Your task to perform on an android device: Go to accessibility settings Image 0: 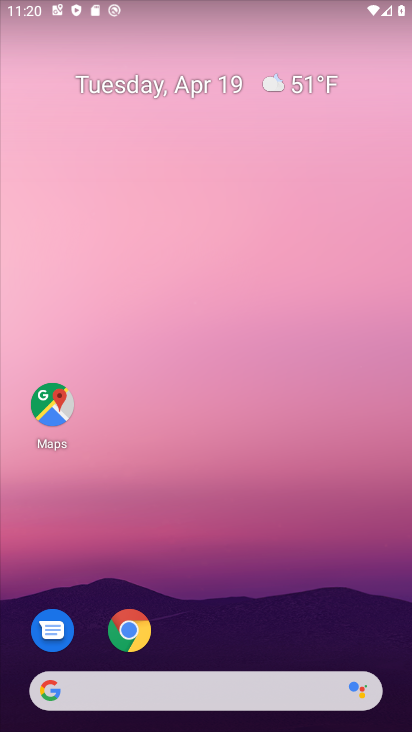
Step 0: click (145, 623)
Your task to perform on an android device: Go to accessibility settings Image 1: 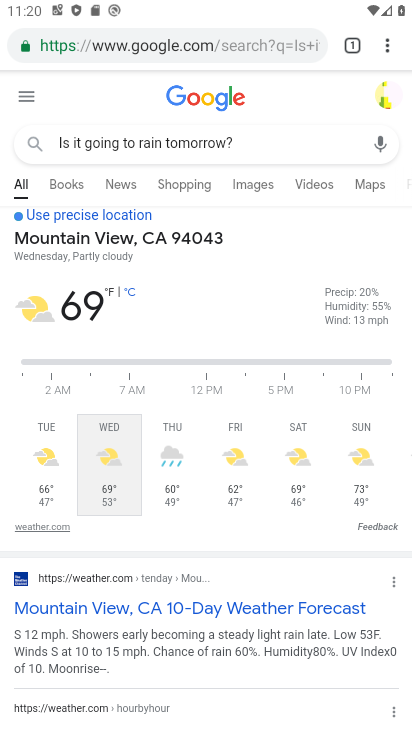
Step 1: click (386, 51)
Your task to perform on an android device: Go to accessibility settings Image 2: 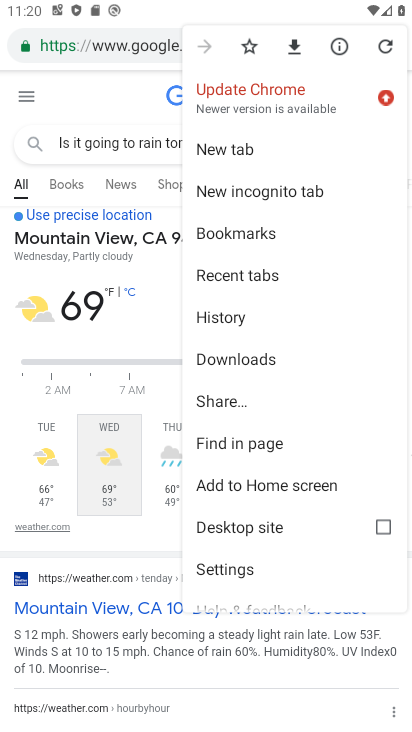
Step 2: click (277, 564)
Your task to perform on an android device: Go to accessibility settings Image 3: 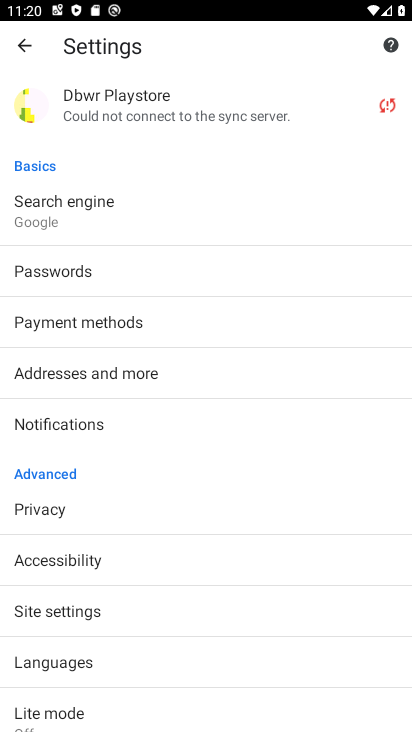
Step 3: drag from (253, 629) to (247, 408)
Your task to perform on an android device: Go to accessibility settings Image 4: 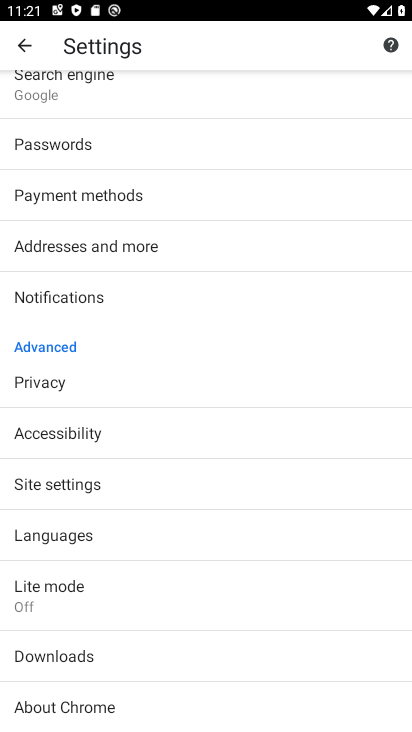
Step 4: click (242, 445)
Your task to perform on an android device: Go to accessibility settings Image 5: 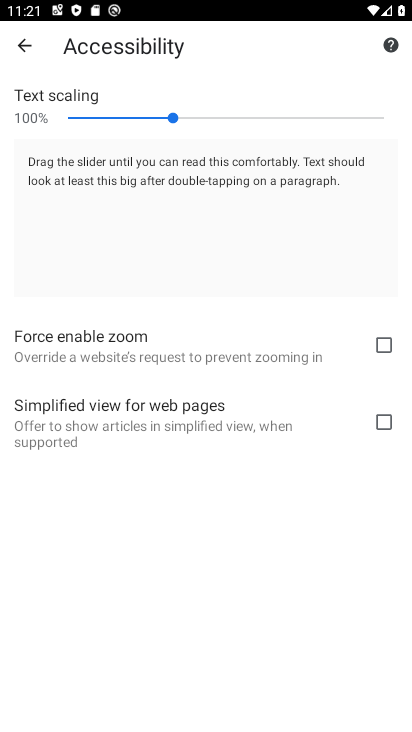
Step 5: task complete